Your task to perform on an android device: change the clock display to show seconds Image 0: 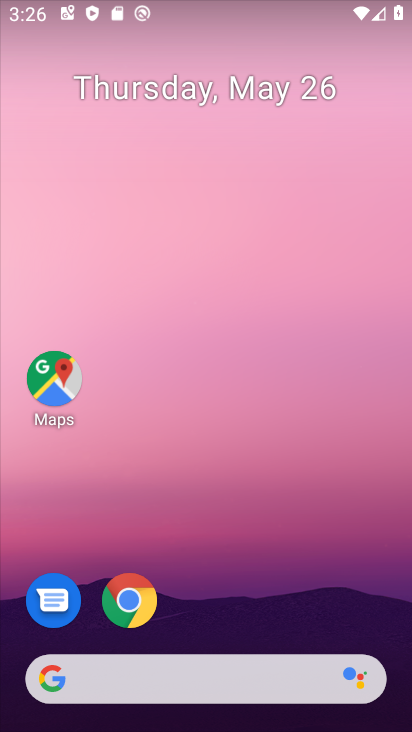
Step 0: drag from (287, 563) to (203, 49)
Your task to perform on an android device: change the clock display to show seconds Image 1: 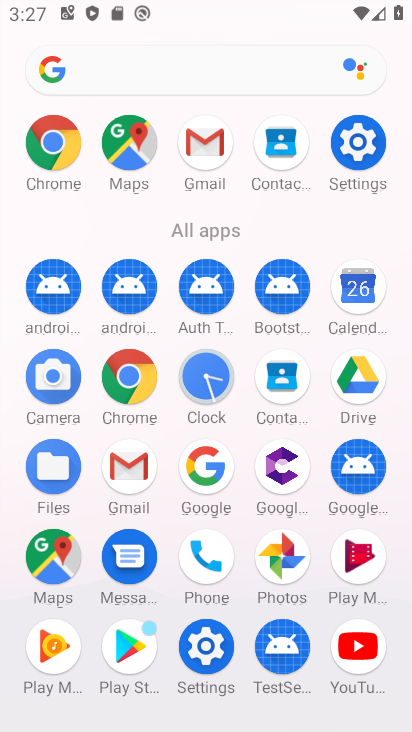
Step 1: drag from (7, 621) to (5, 242)
Your task to perform on an android device: change the clock display to show seconds Image 2: 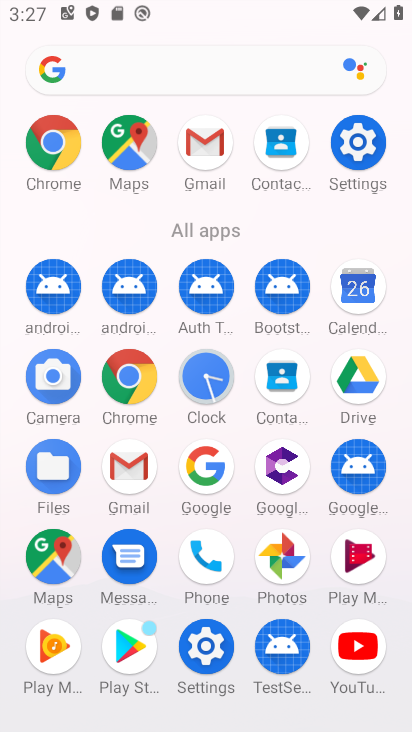
Step 2: click (206, 373)
Your task to perform on an android device: change the clock display to show seconds Image 3: 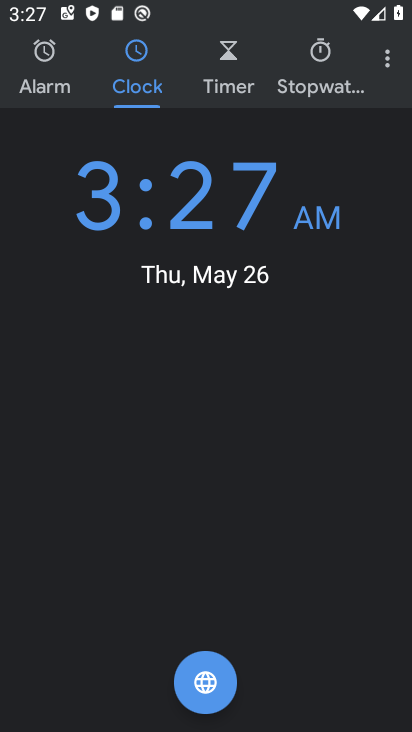
Step 3: drag from (384, 48) to (310, 129)
Your task to perform on an android device: change the clock display to show seconds Image 4: 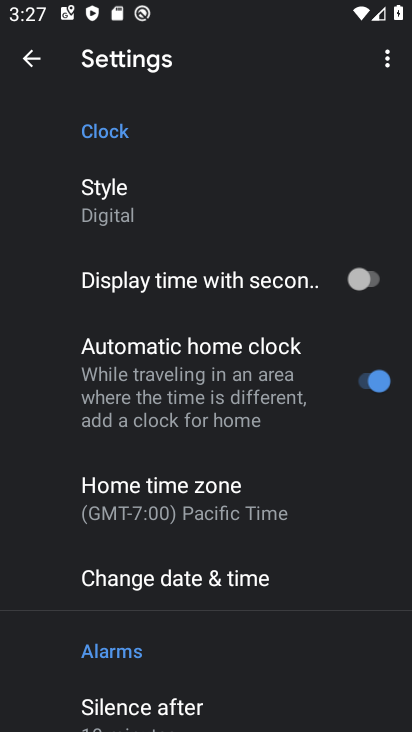
Step 4: click (365, 274)
Your task to perform on an android device: change the clock display to show seconds Image 5: 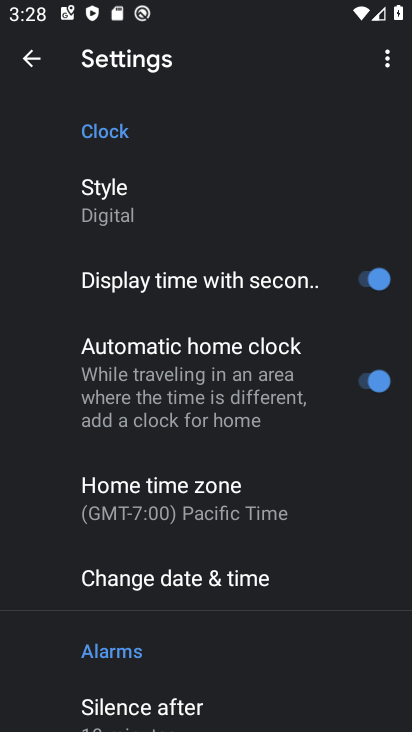
Step 5: task complete